Your task to perform on an android device: add a label to a message in the gmail app Image 0: 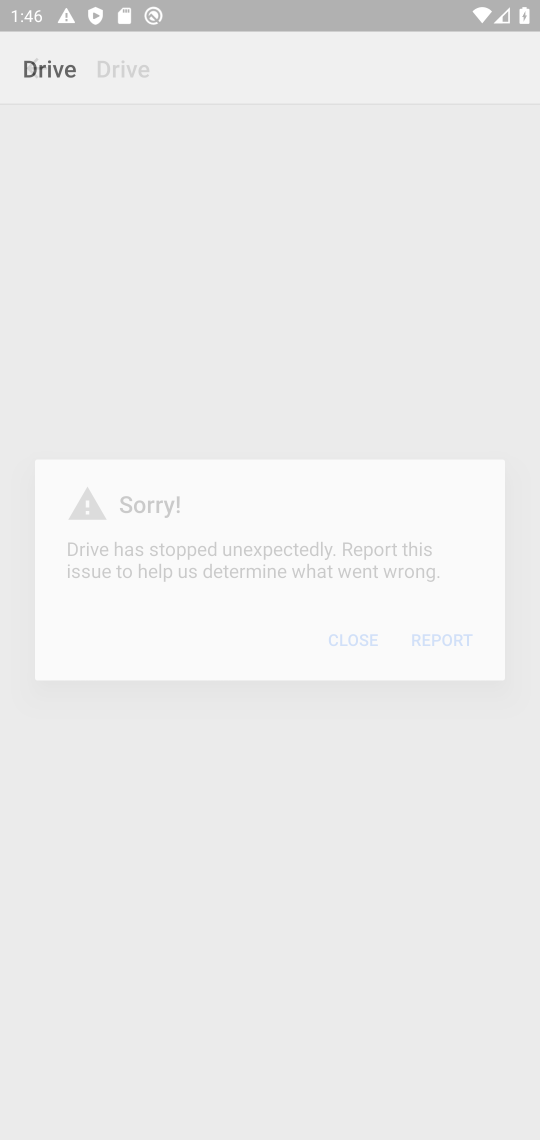
Step 0: press back button
Your task to perform on an android device: add a label to a message in the gmail app Image 1: 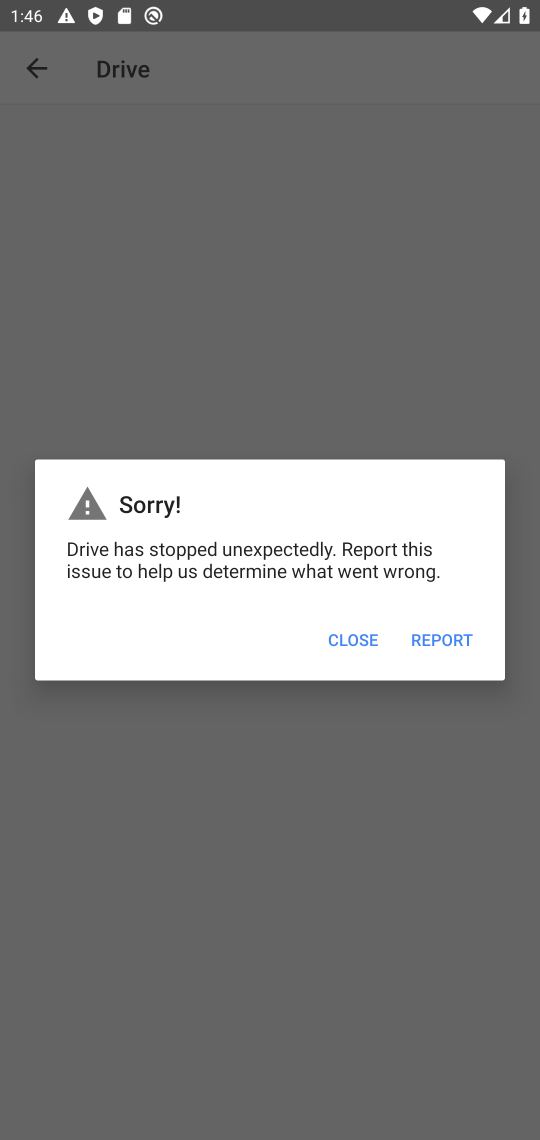
Step 1: press home button
Your task to perform on an android device: add a label to a message in the gmail app Image 2: 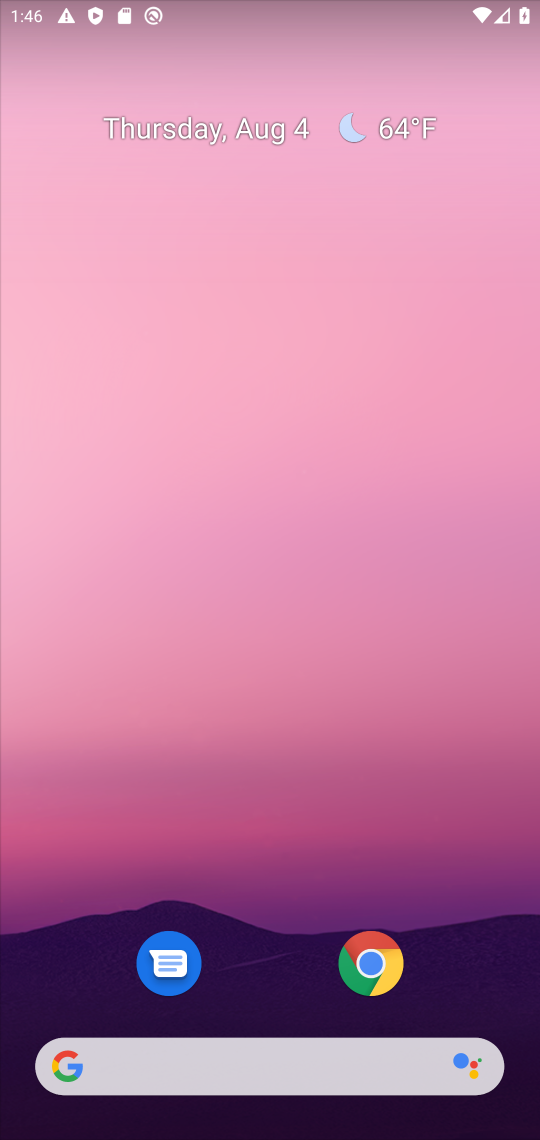
Step 2: drag from (238, 1052) to (165, 333)
Your task to perform on an android device: add a label to a message in the gmail app Image 3: 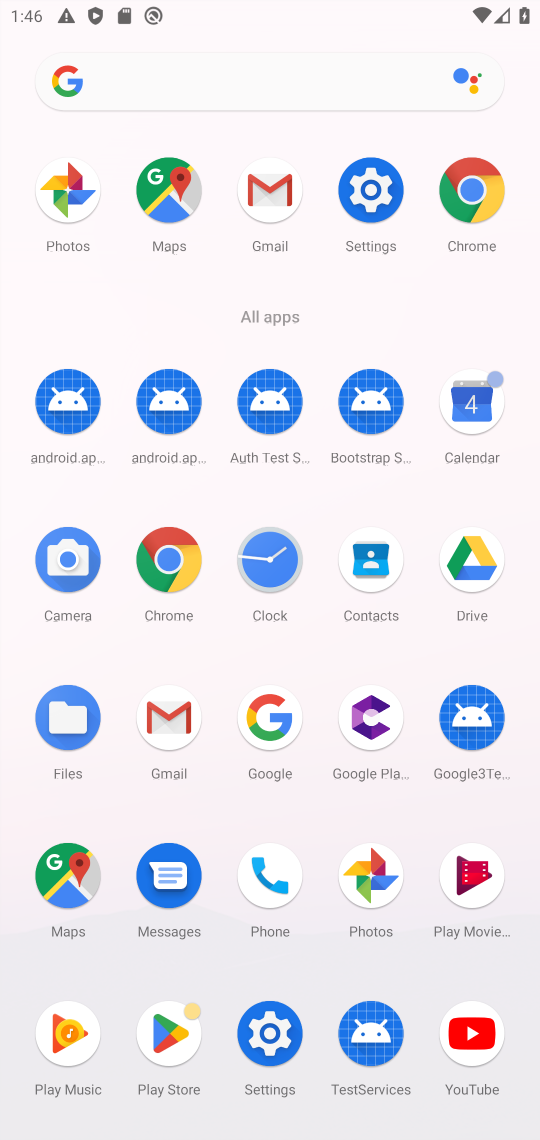
Step 3: click (165, 739)
Your task to perform on an android device: add a label to a message in the gmail app Image 4: 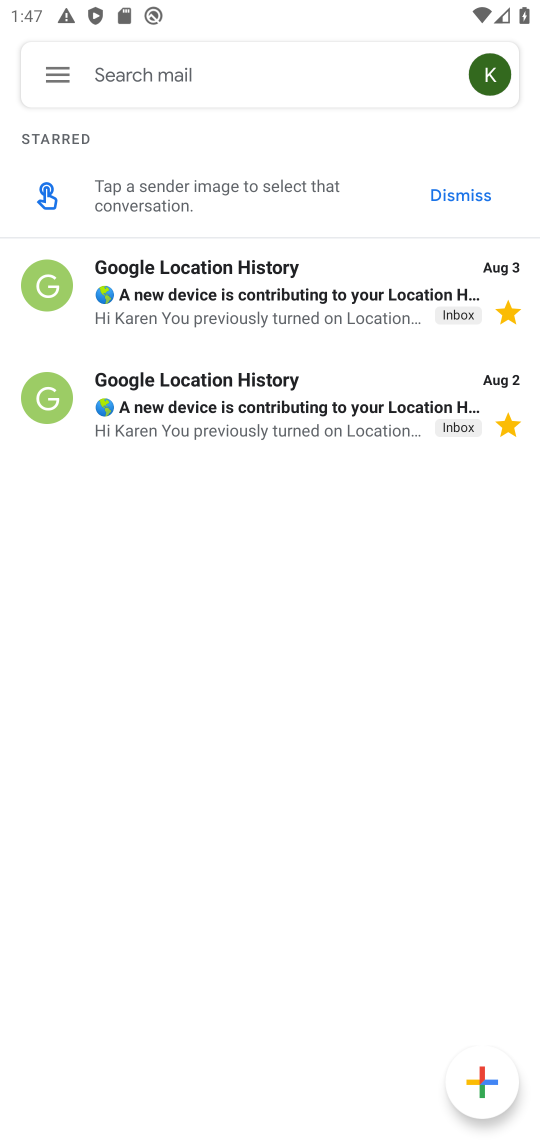
Step 4: click (225, 300)
Your task to perform on an android device: add a label to a message in the gmail app Image 5: 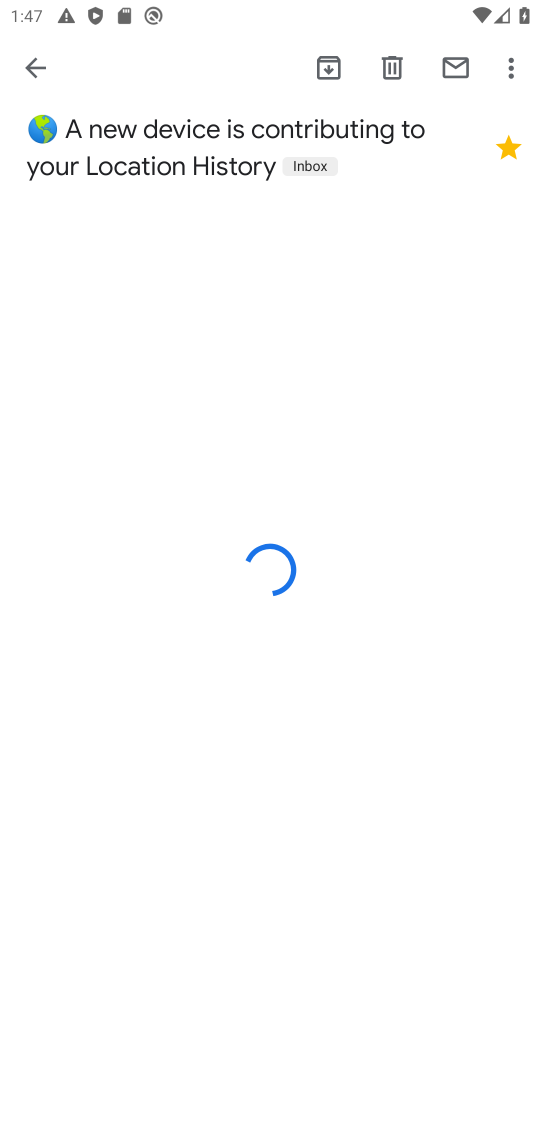
Step 5: click (300, 169)
Your task to perform on an android device: add a label to a message in the gmail app Image 6: 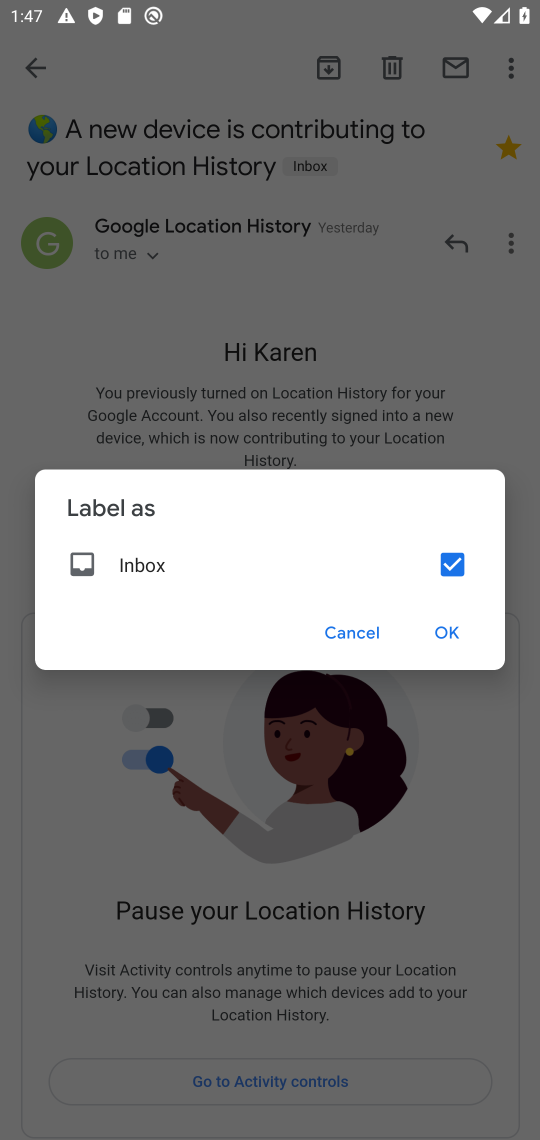
Step 6: click (442, 569)
Your task to perform on an android device: add a label to a message in the gmail app Image 7: 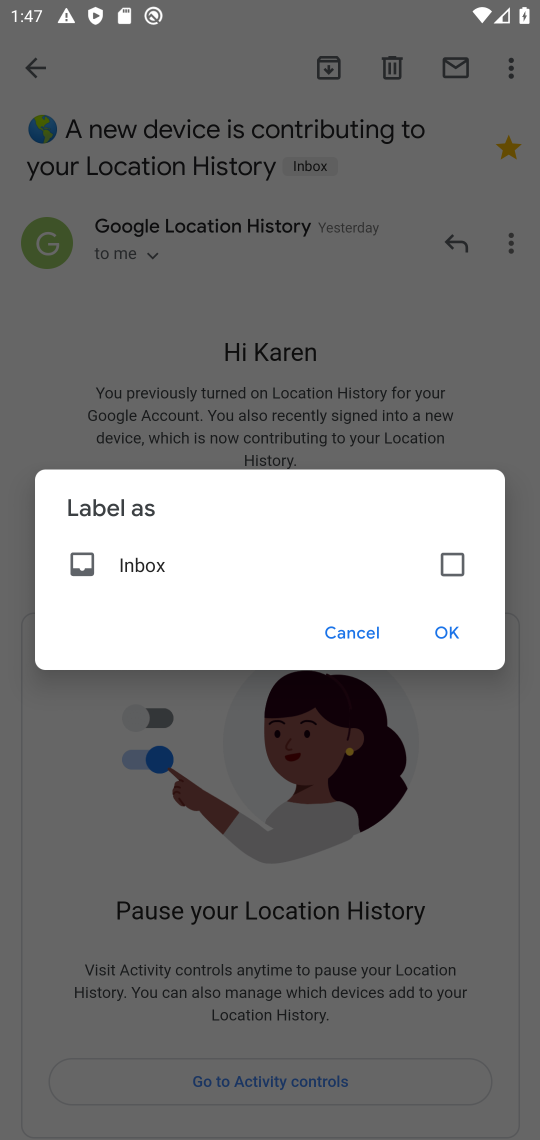
Step 7: click (446, 636)
Your task to perform on an android device: add a label to a message in the gmail app Image 8: 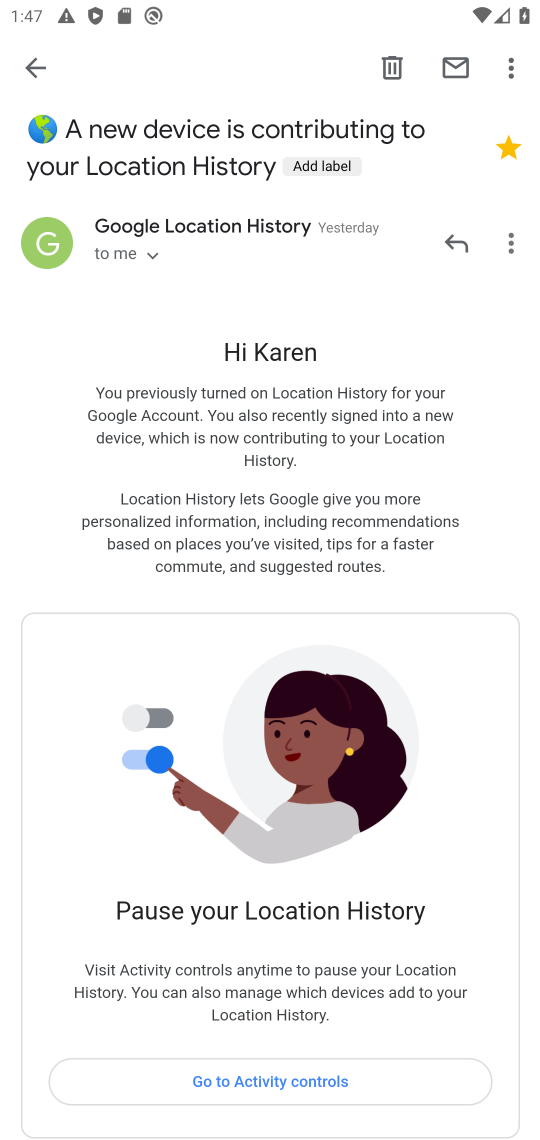
Step 8: task complete